Your task to perform on an android device: turn off airplane mode Image 0: 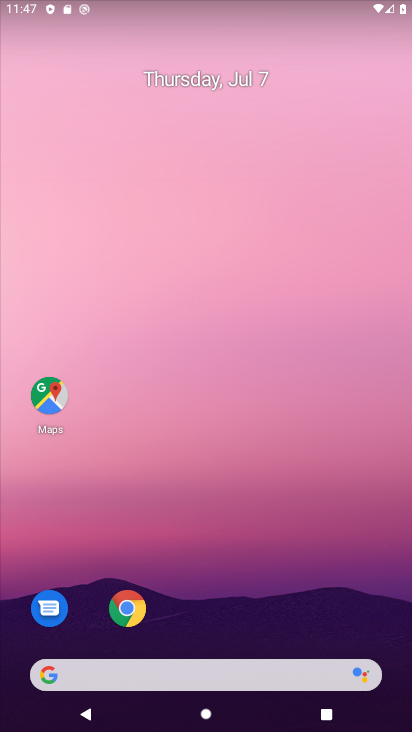
Step 0: drag from (309, 610) to (80, 34)
Your task to perform on an android device: turn off airplane mode Image 1: 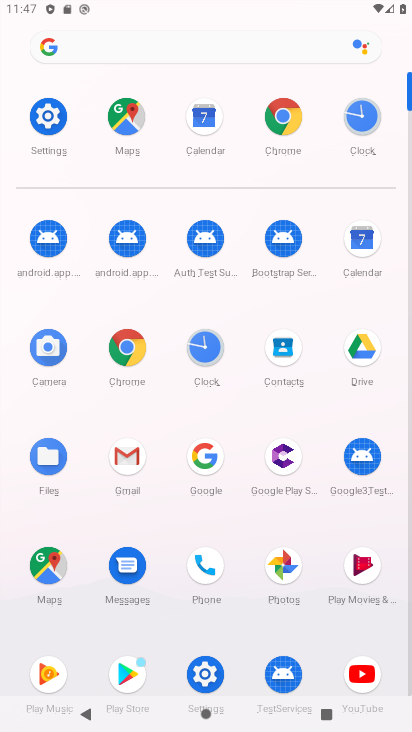
Step 1: click (44, 147)
Your task to perform on an android device: turn off airplane mode Image 2: 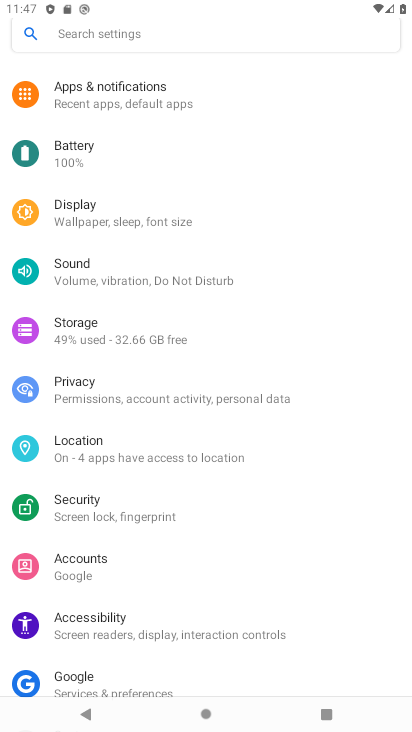
Step 2: drag from (106, 110) to (153, 571)
Your task to perform on an android device: turn off airplane mode Image 3: 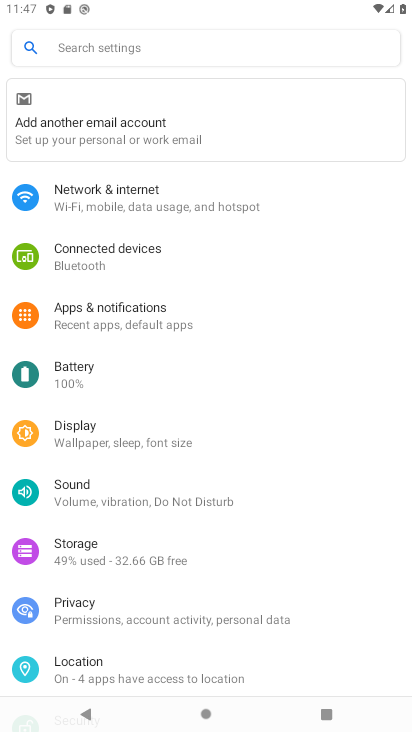
Step 3: click (167, 223)
Your task to perform on an android device: turn off airplane mode Image 4: 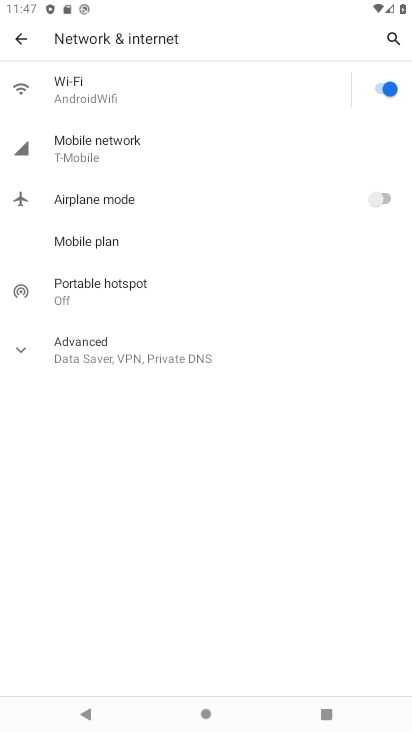
Step 4: task complete